Your task to perform on an android device: Open maps Image 0: 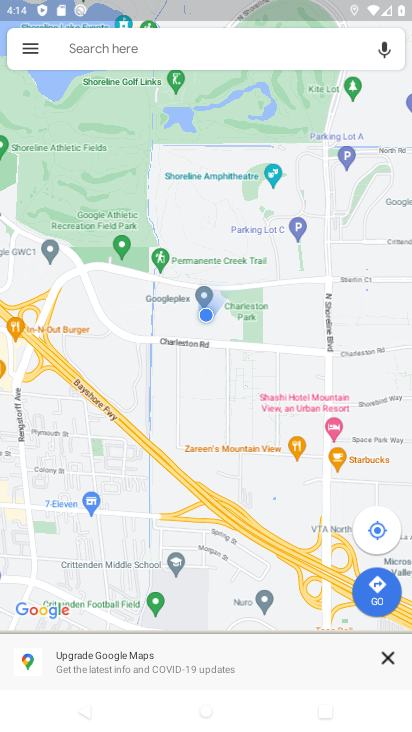
Step 0: press home button
Your task to perform on an android device: Open maps Image 1: 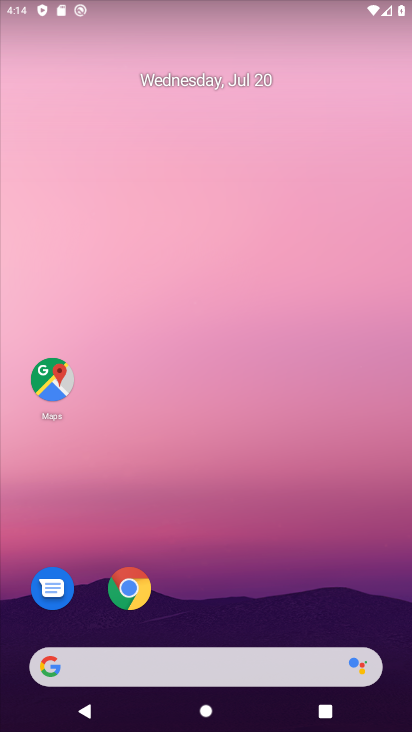
Step 1: click (53, 378)
Your task to perform on an android device: Open maps Image 2: 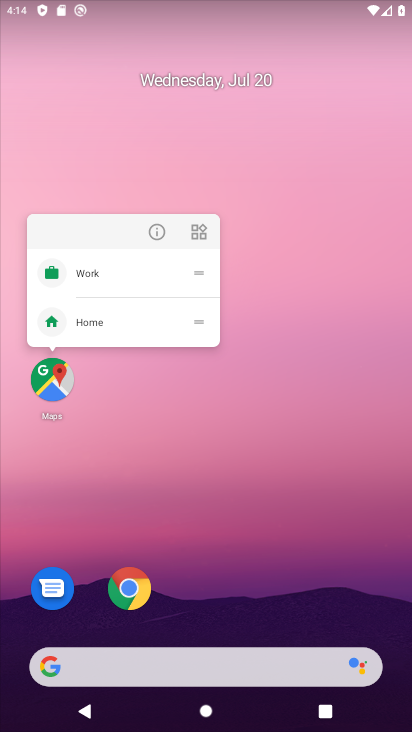
Step 2: click (53, 384)
Your task to perform on an android device: Open maps Image 3: 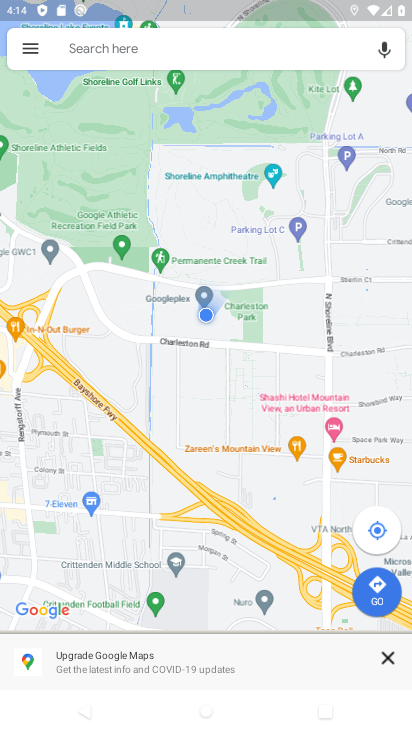
Step 3: task complete